Your task to perform on an android device: Open Maps and search for coffee Image 0: 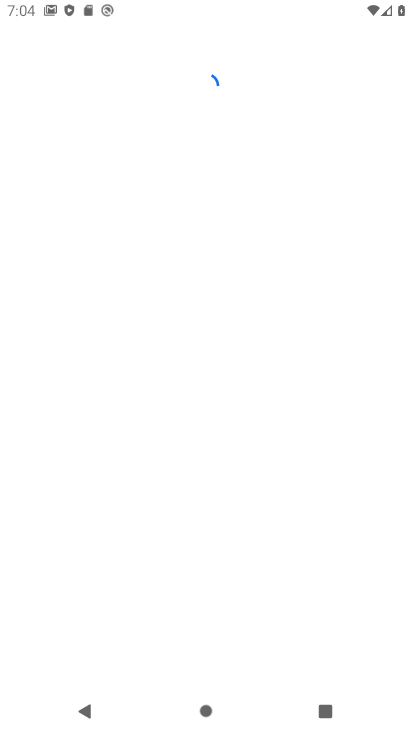
Step 0: drag from (252, 611) to (253, 440)
Your task to perform on an android device: Open Maps and search for coffee Image 1: 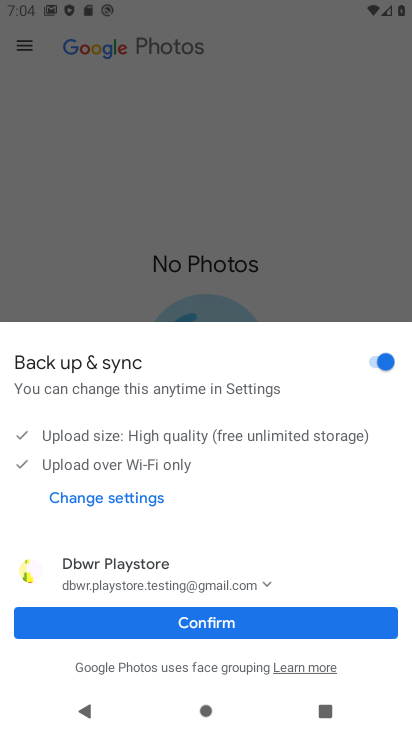
Step 1: press home button
Your task to perform on an android device: Open Maps and search for coffee Image 2: 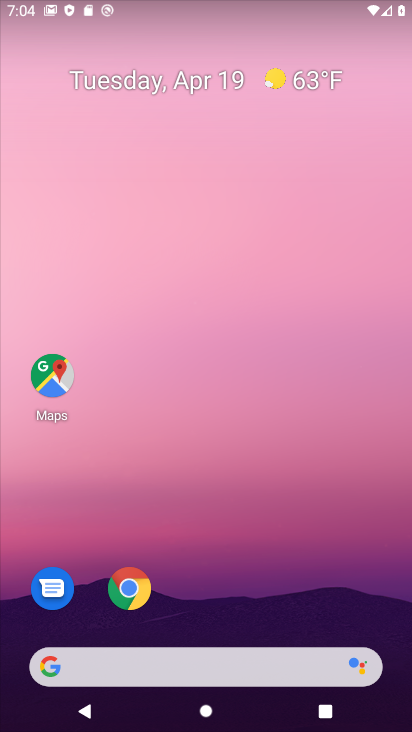
Step 2: click (36, 377)
Your task to perform on an android device: Open Maps and search for coffee Image 3: 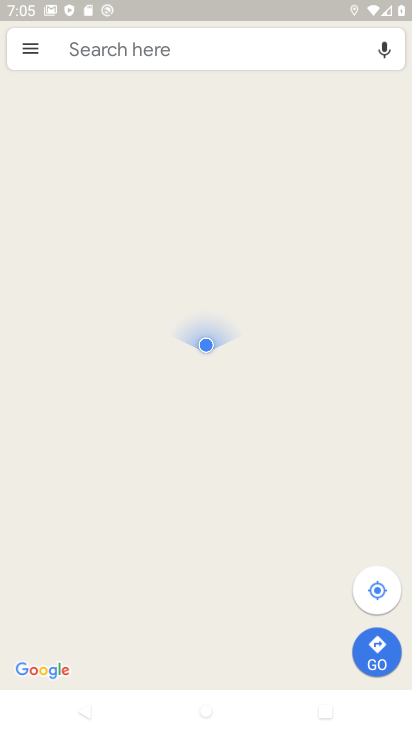
Step 3: click (143, 45)
Your task to perform on an android device: Open Maps and search for coffee Image 4: 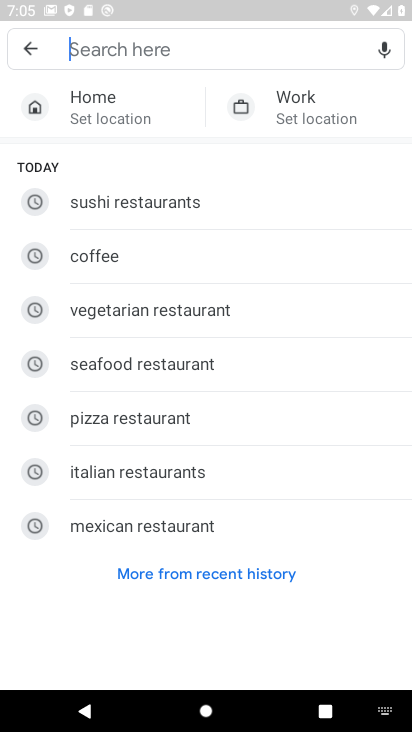
Step 4: click (90, 257)
Your task to perform on an android device: Open Maps and search for coffee Image 5: 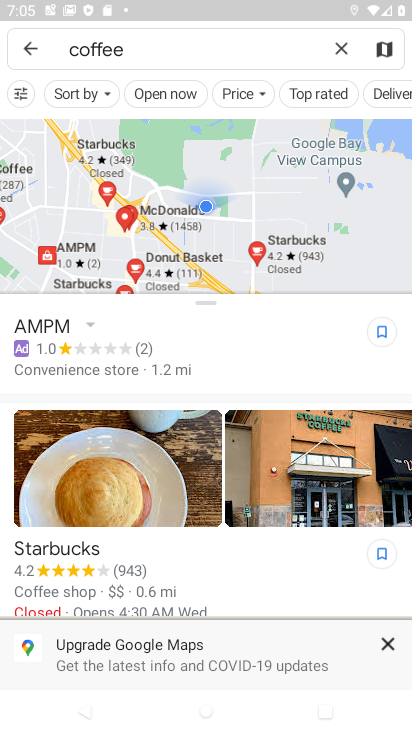
Step 5: task complete